Your task to perform on an android device: add a label to a message in the gmail app Image 0: 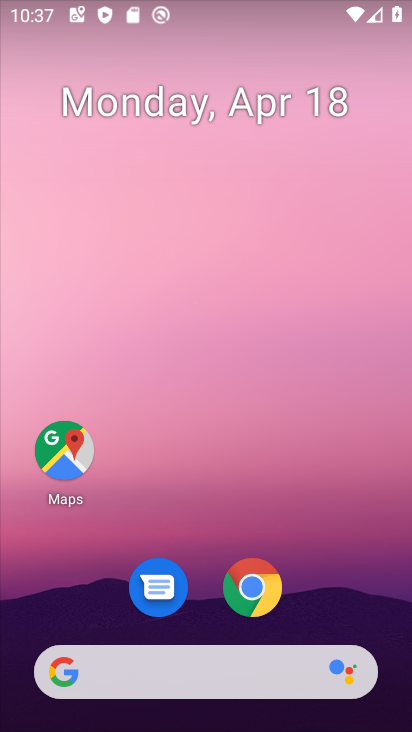
Step 0: drag from (336, 539) to (342, 150)
Your task to perform on an android device: add a label to a message in the gmail app Image 1: 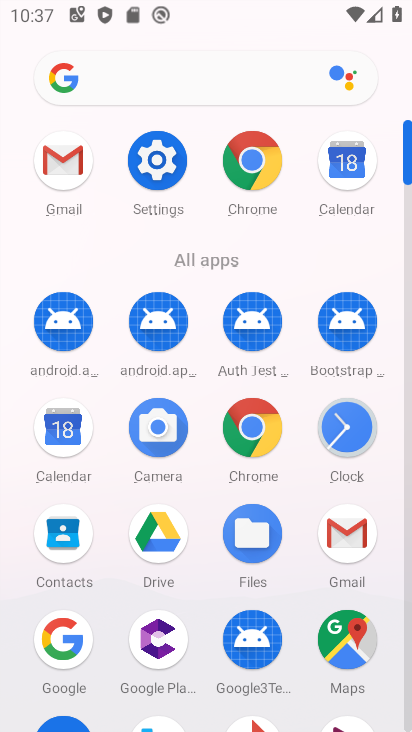
Step 1: click (69, 160)
Your task to perform on an android device: add a label to a message in the gmail app Image 2: 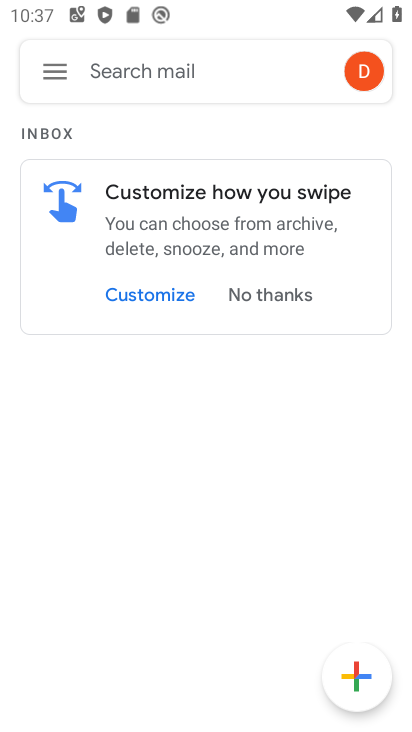
Step 2: click (62, 79)
Your task to perform on an android device: add a label to a message in the gmail app Image 3: 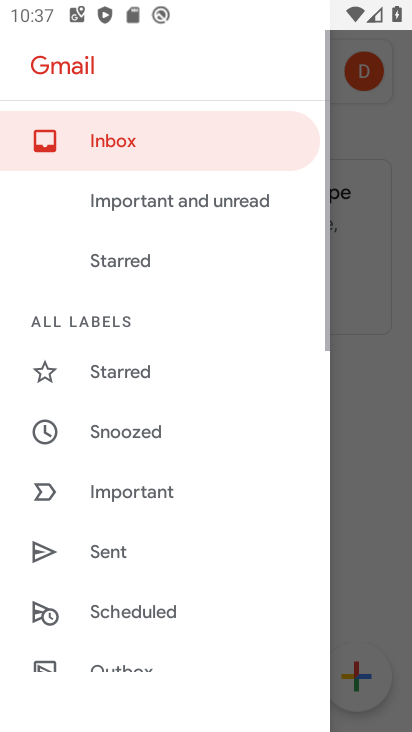
Step 3: drag from (146, 607) to (219, 227)
Your task to perform on an android device: add a label to a message in the gmail app Image 4: 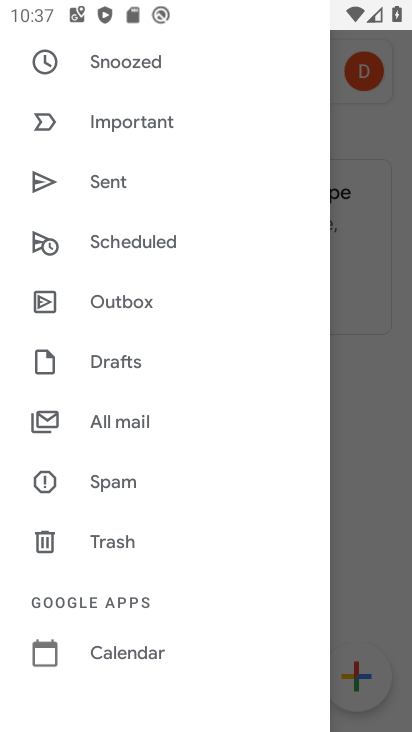
Step 4: click (121, 408)
Your task to perform on an android device: add a label to a message in the gmail app Image 5: 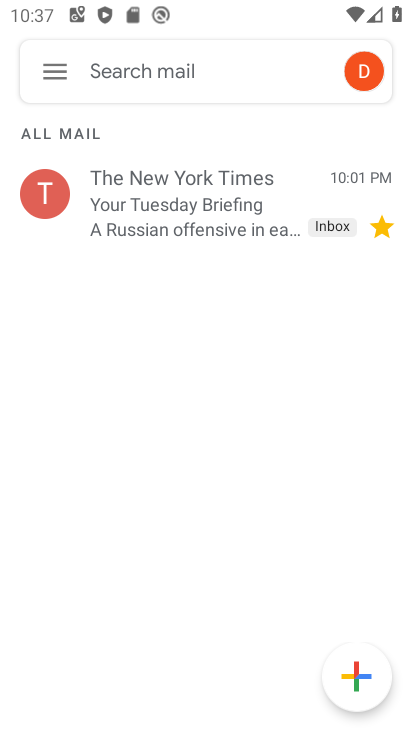
Step 5: click (262, 188)
Your task to perform on an android device: add a label to a message in the gmail app Image 6: 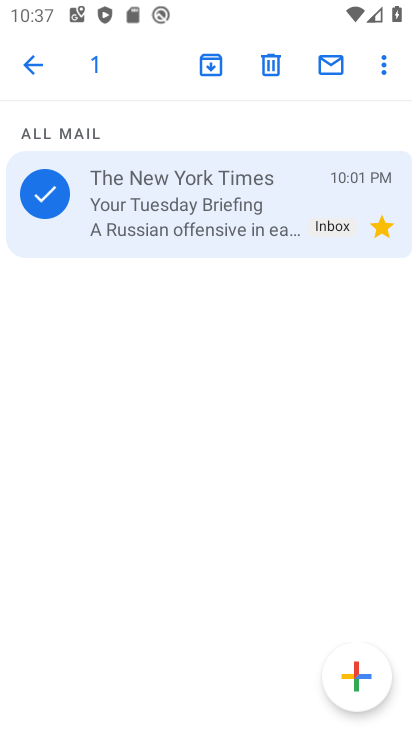
Step 6: click (375, 69)
Your task to perform on an android device: add a label to a message in the gmail app Image 7: 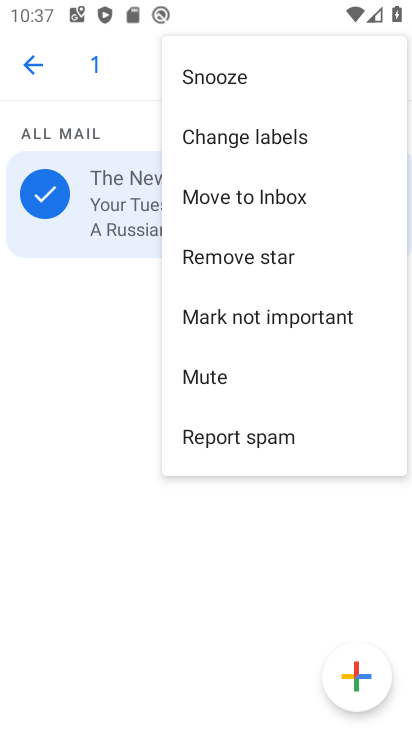
Step 7: click (196, 70)
Your task to perform on an android device: add a label to a message in the gmail app Image 8: 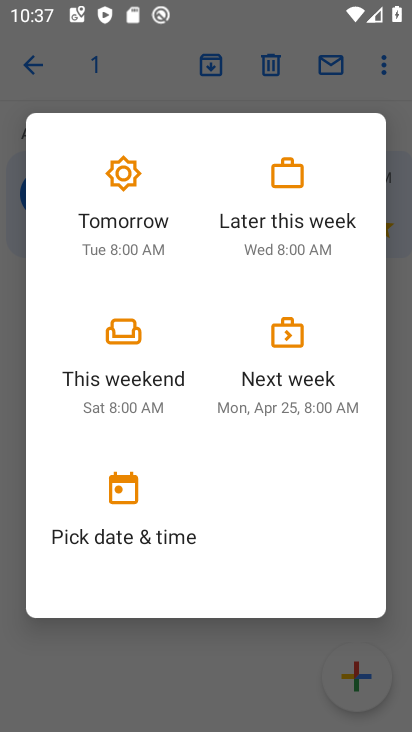
Step 8: click (125, 217)
Your task to perform on an android device: add a label to a message in the gmail app Image 9: 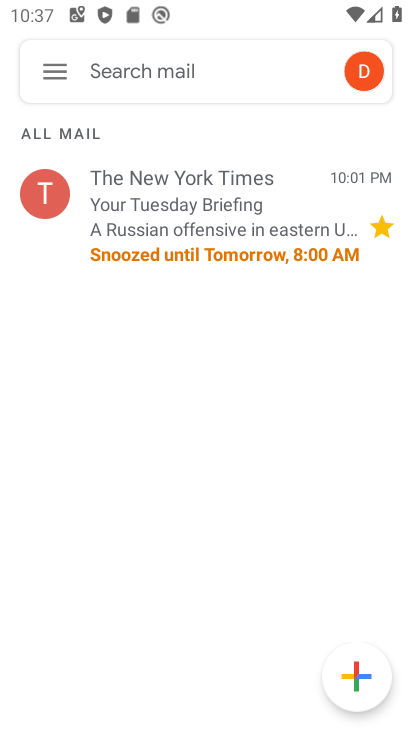
Step 9: task complete